Your task to perform on an android device: Search for sushi restaurants on Maps Image 0: 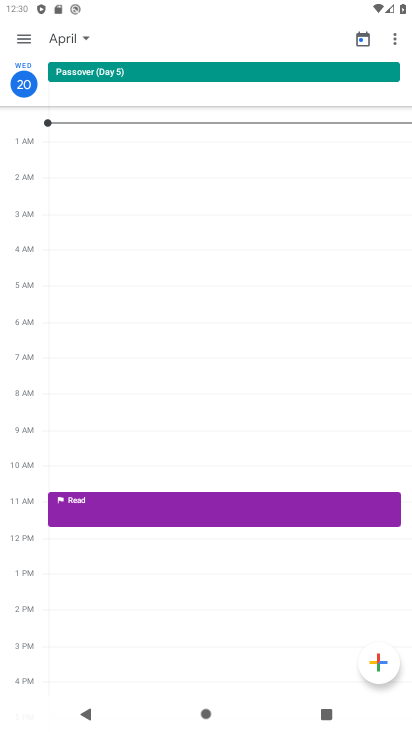
Step 0: press home button
Your task to perform on an android device: Search for sushi restaurants on Maps Image 1: 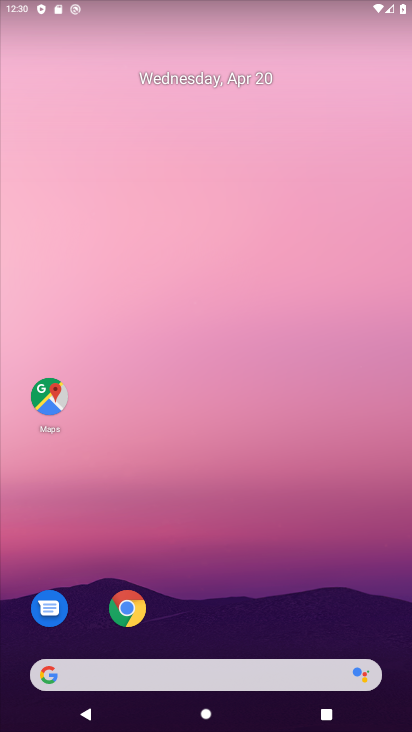
Step 1: click (54, 389)
Your task to perform on an android device: Search for sushi restaurants on Maps Image 2: 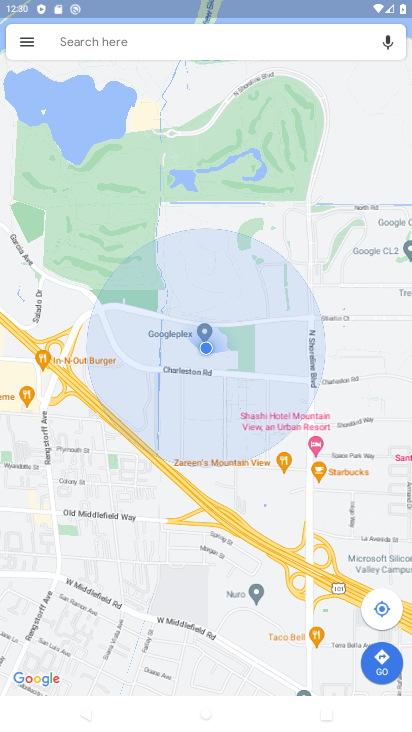
Step 2: click (155, 49)
Your task to perform on an android device: Search for sushi restaurants on Maps Image 3: 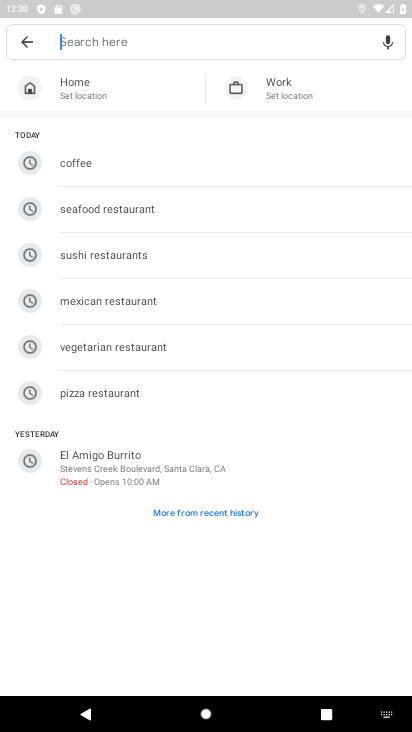
Step 3: click (117, 253)
Your task to perform on an android device: Search for sushi restaurants on Maps Image 4: 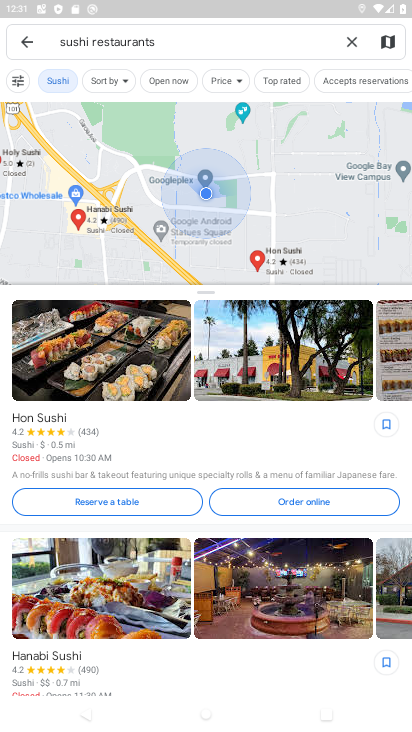
Step 4: task complete